Your task to perform on an android device: Open Yahoo.com Image 0: 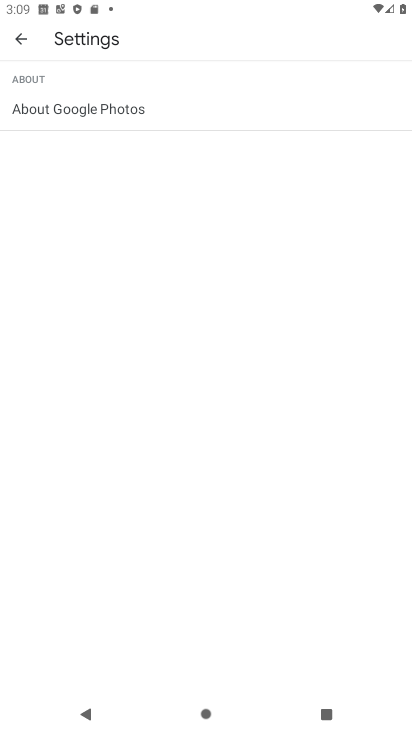
Step 0: press home button
Your task to perform on an android device: Open Yahoo.com Image 1: 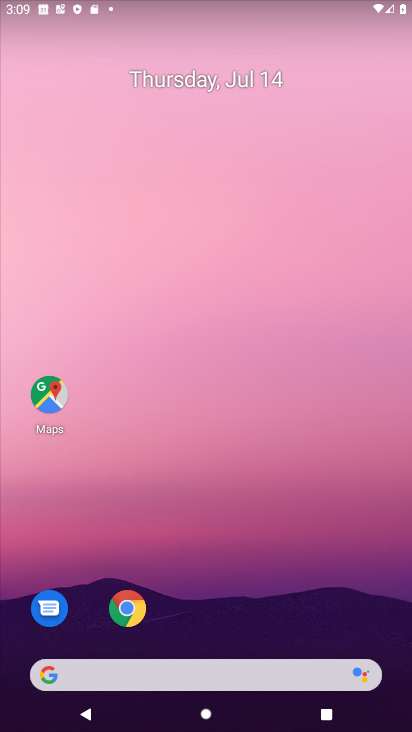
Step 1: click (127, 605)
Your task to perform on an android device: Open Yahoo.com Image 2: 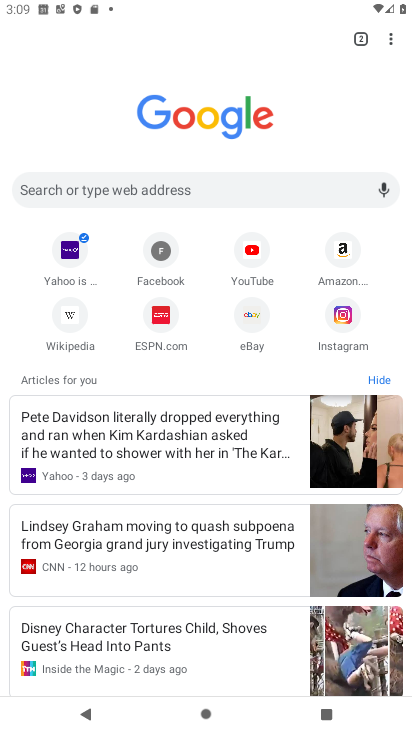
Step 2: click (65, 252)
Your task to perform on an android device: Open Yahoo.com Image 3: 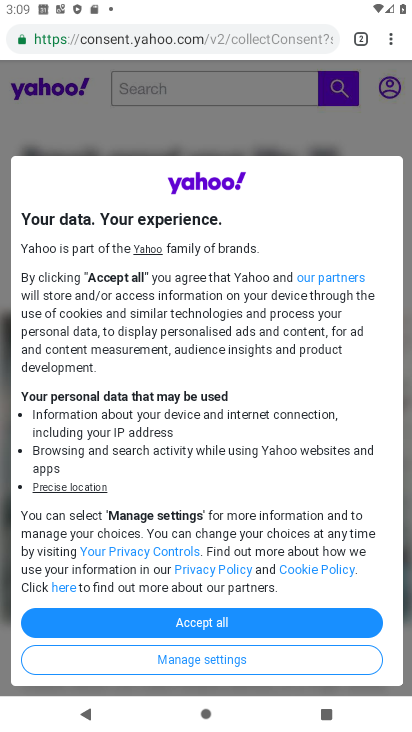
Step 3: task complete